Your task to perform on an android device: Is it going to rain tomorrow? Image 0: 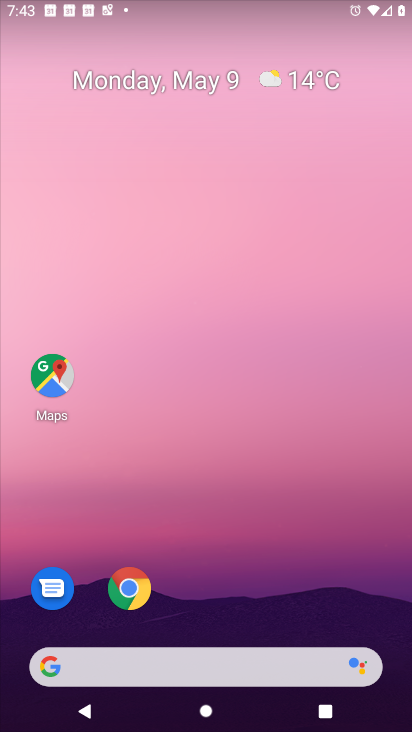
Step 0: click (154, 660)
Your task to perform on an android device: Is it going to rain tomorrow? Image 1: 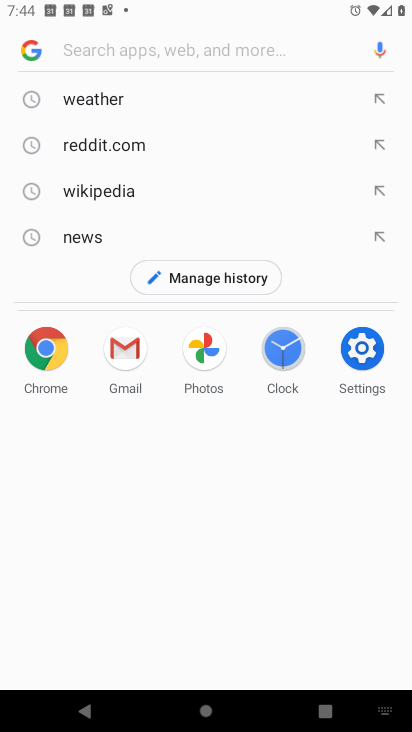
Step 1: type "Is it going to rain today/"
Your task to perform on an android device: Is it going to rain tomorrow? Image 2: 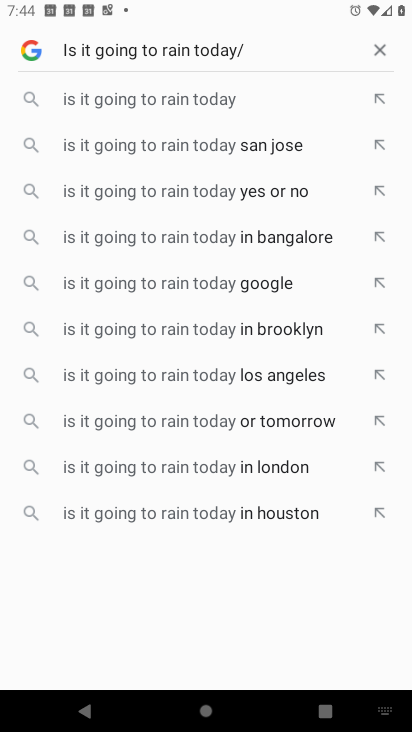
Step 2: click (194, 103)
Your task to perform on an android device: Is it going to rain tomorrow? Image 3: 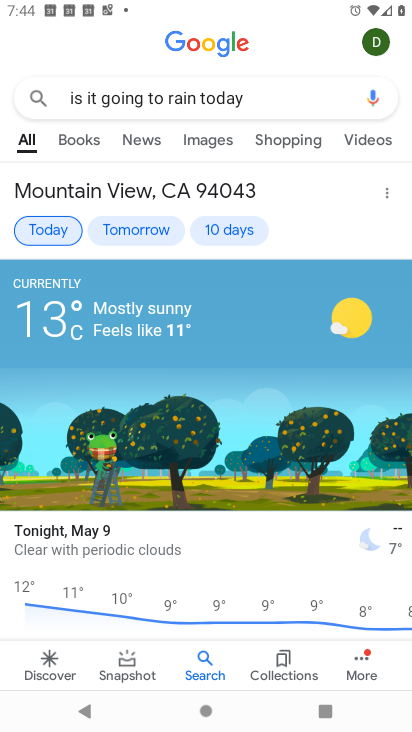
Step 3: task complete